Your task to perform on an android device: delete location history Image 0: 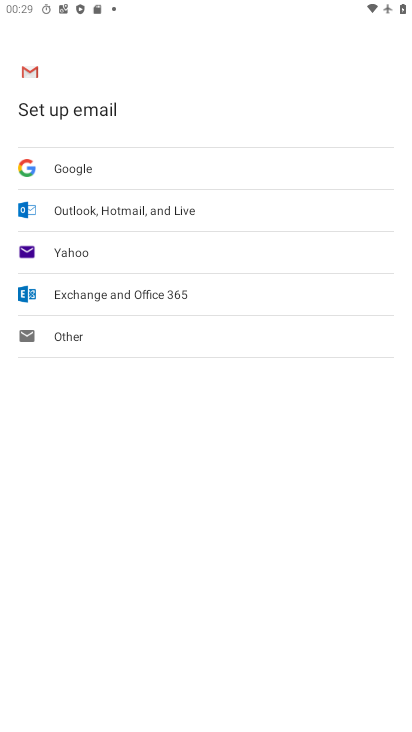
Step 0: press home button
Your task to perform on an android device: delete location history Image 1: 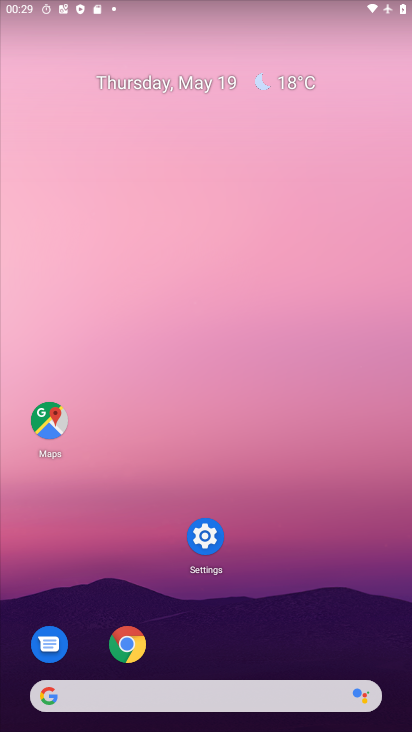
Step 1: drag from (307, 617) to (299, 193)
Your task to perform on an android device: delete location history Image 2: 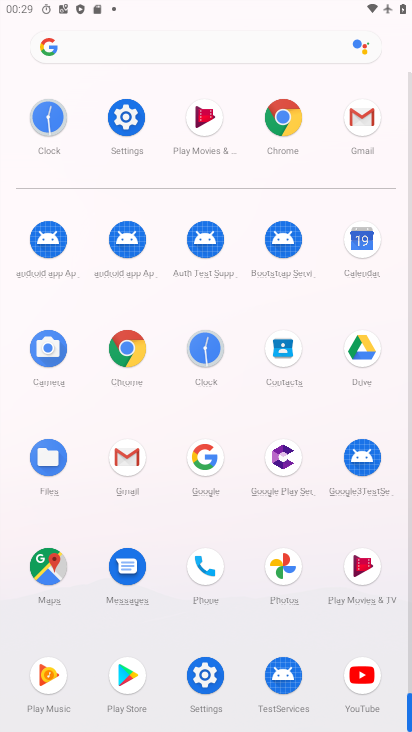
Step 2: click (48, 574)
Your task to perform on an android device: delete location history Image 3: 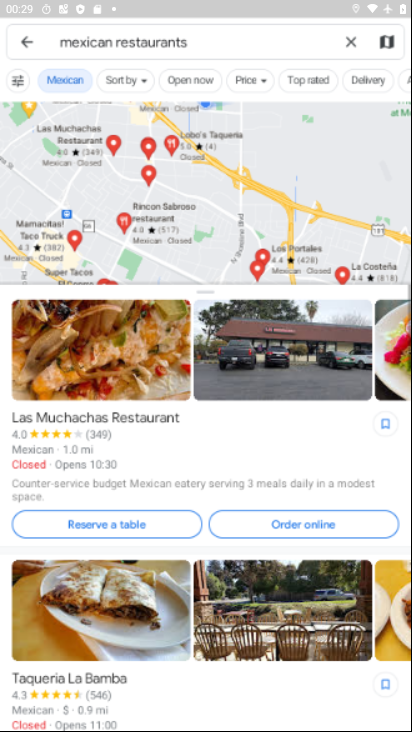
Step 3: click (28, 34)
Your task to perform on an android device: delete location history Image 4: 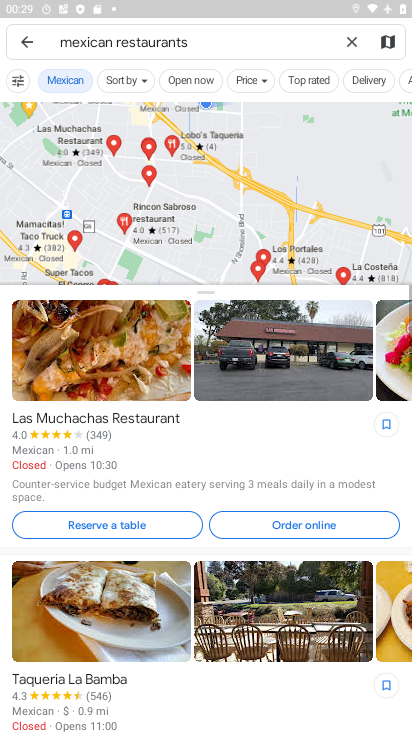
Step 4: click (26, 40)
Your task to perform on an android device: delete location history Image 5: 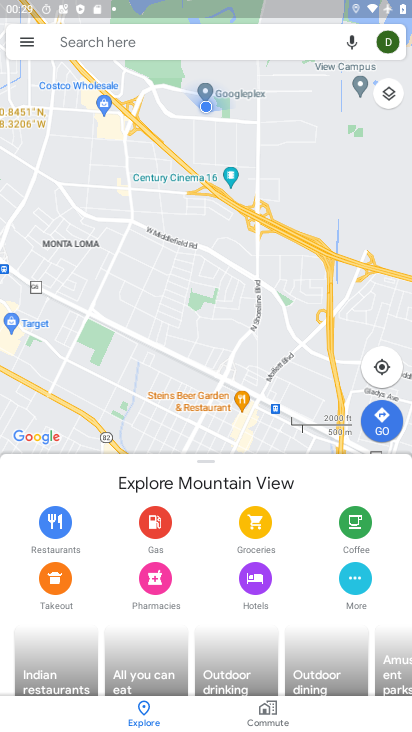
Step 5: click (27, 41)
Your task to perform on an android device: delete location history Image 6: 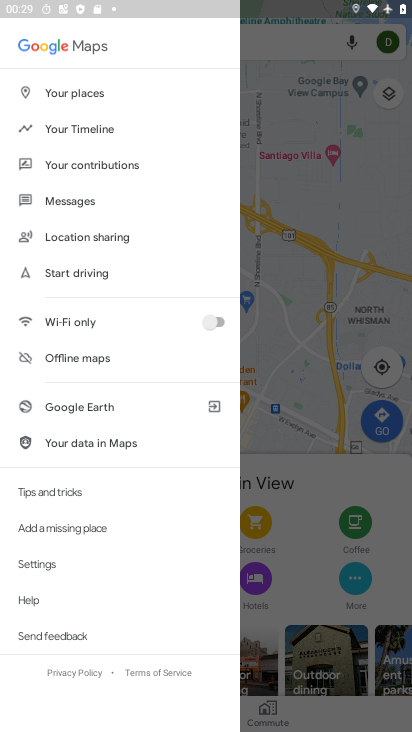
Step 6: drag from (85, 511) to (131, 209)
Your task to perform on an android device: delete location history Image 7: 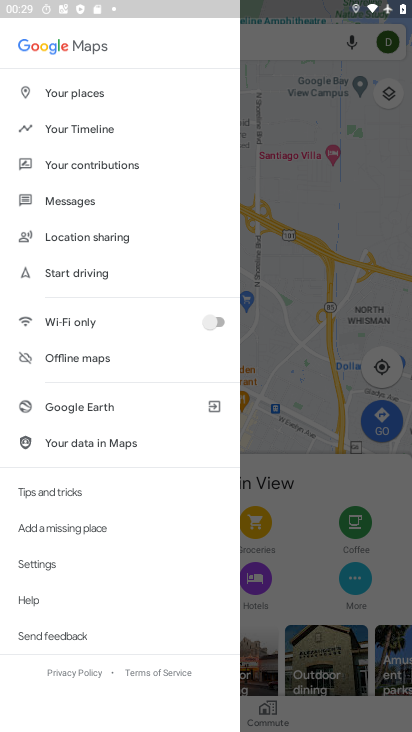
Step 7: click (56, 567)
Your task to perform on an android device: delete location history Image 8: 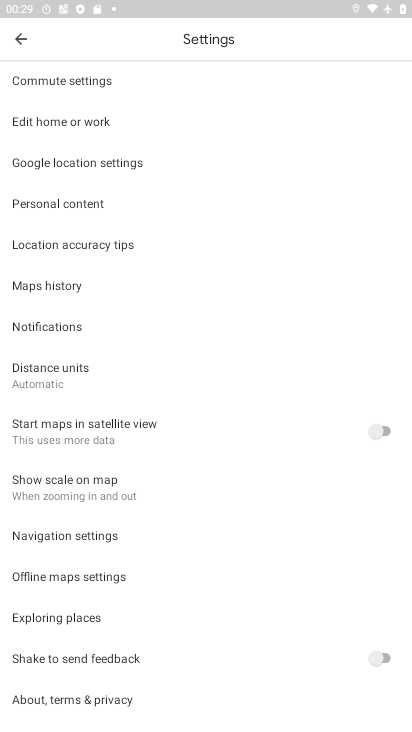
Step 8: click (59, 289)
Your task to perform on an android device: delete location history Image 9: 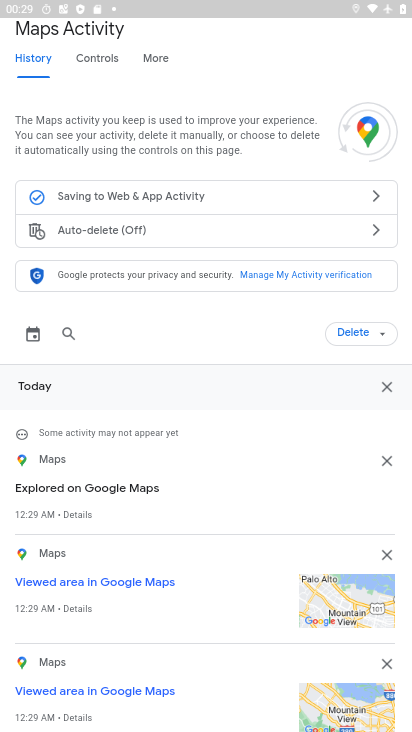
Step 9: click (362, 328)
Your task to perform on an android device: delete location history Image 10: 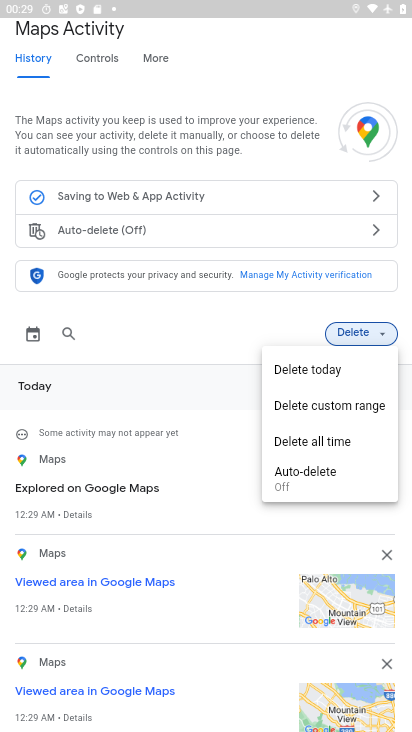
Step 10: drag from (389, 330) to (367, 167)
Your task to perform on an android device: delete location history Image 11: 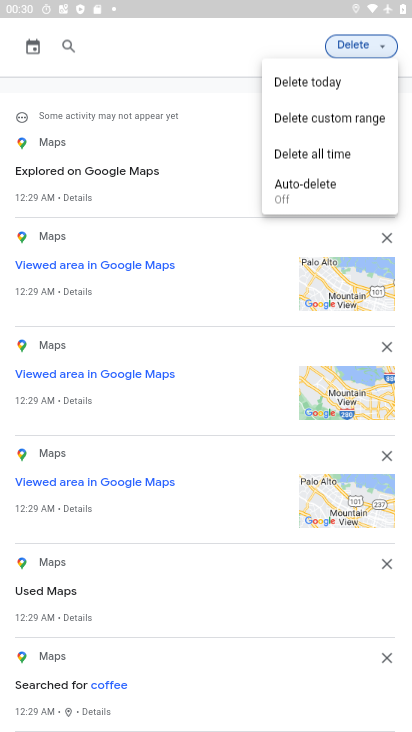
Step 11: click (322, 147)
Your task to perform on an android device: delete location history Image 12: 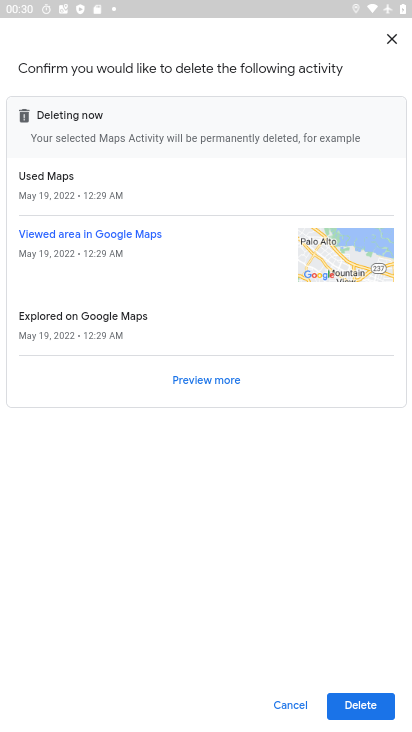
Step 12: click (364, 713)
Your task to perform on an android device: delete location history Image 13: 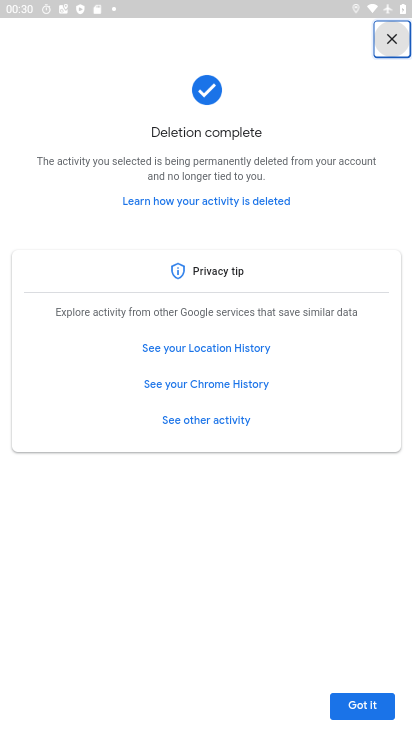
Step 13: task complete